Your task to perform on an android device: Open Chrome and go to settings Image 0: 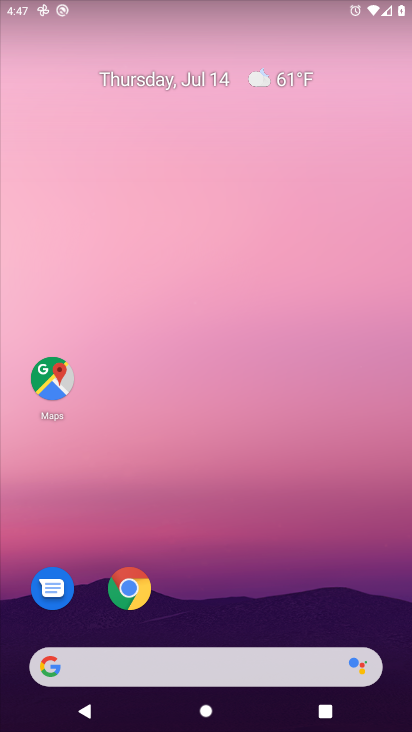
Step 0: press home button
Your task to perform on an android device: Open Chrome and go to settings Image 1: 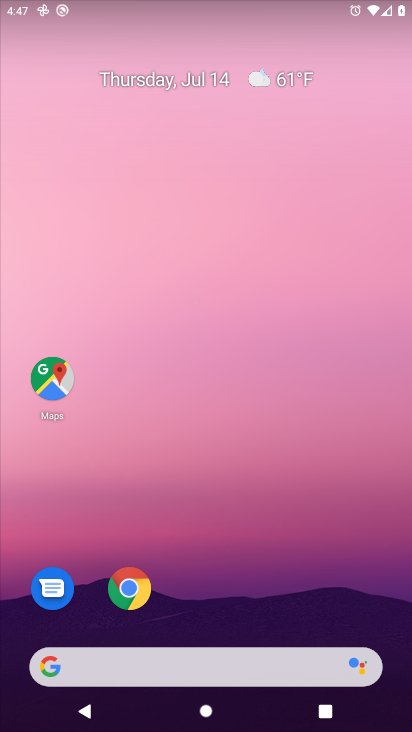
Step 1: drag from (267, 602) to (243, 113)
Your task to perform on an android device: Open Chrome and go to settings Image 2: 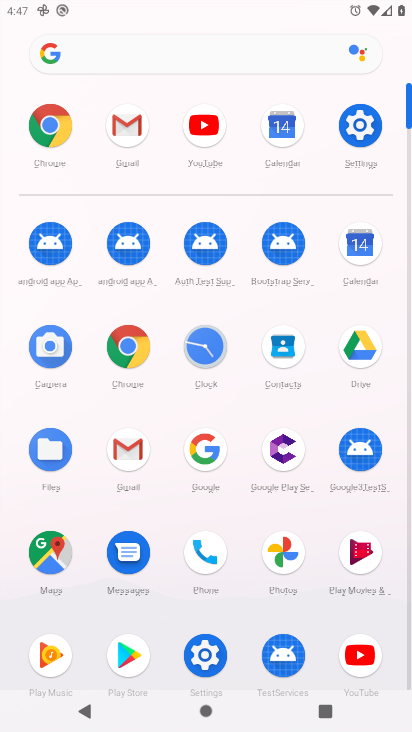
Step 2: click (43, 115)
Your task to perform on an android device: Open Chrome and go to settings Image 3: 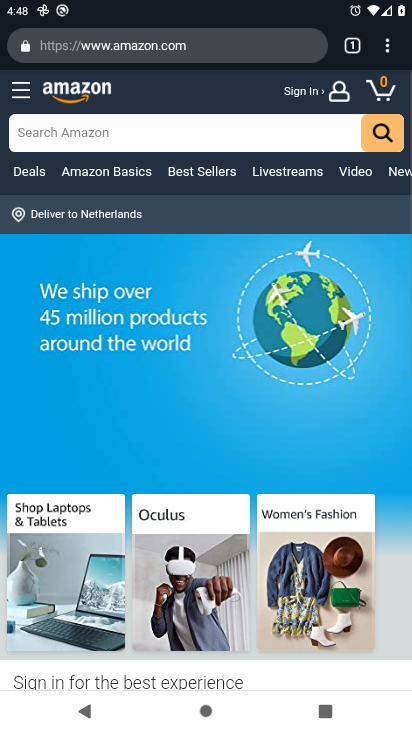
Step 3: task complete